Your task to perform on an android device: uninstall "ZOOM Cloud Meetings" Image 0: 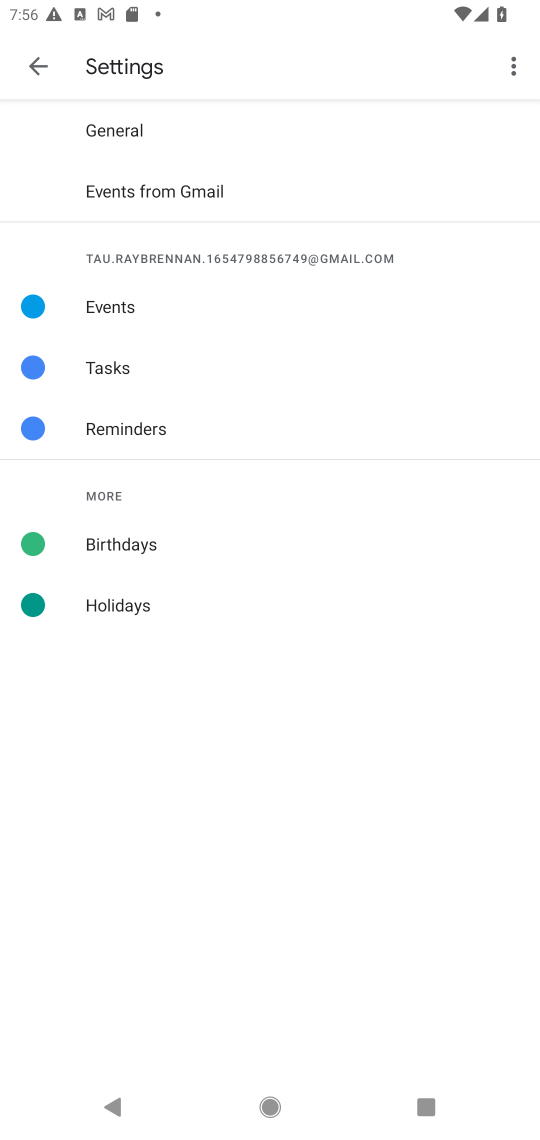
Step 0: press home button
Your task to perform on an android device: uninstall "ZOOM Cloud Meetings" Image 1: 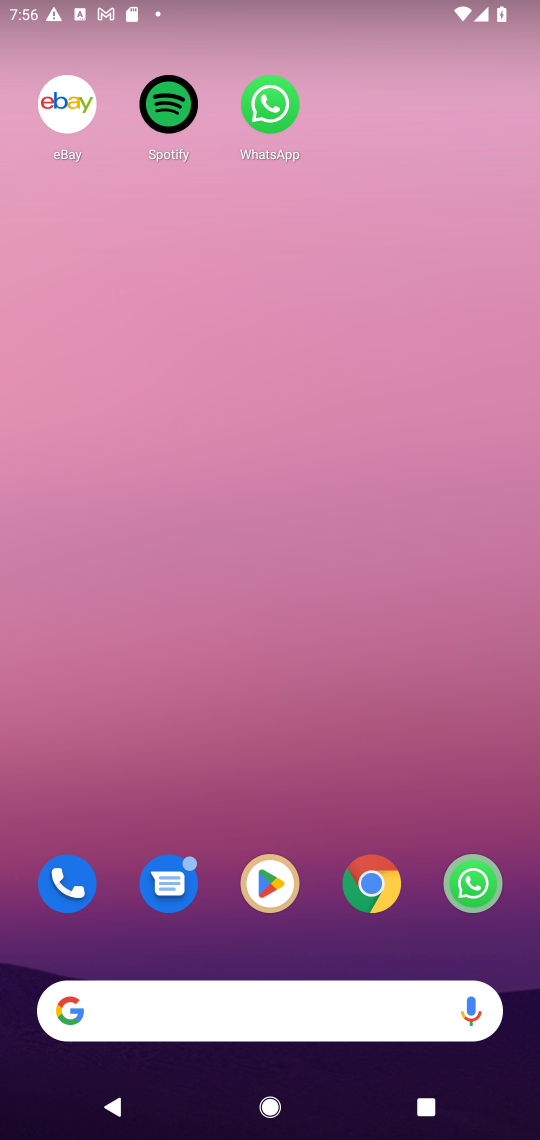
Step 1: click (261, 891)
Your task to perform on an android device: uninstall "ZOOM Cloud Meetings" Image 2: 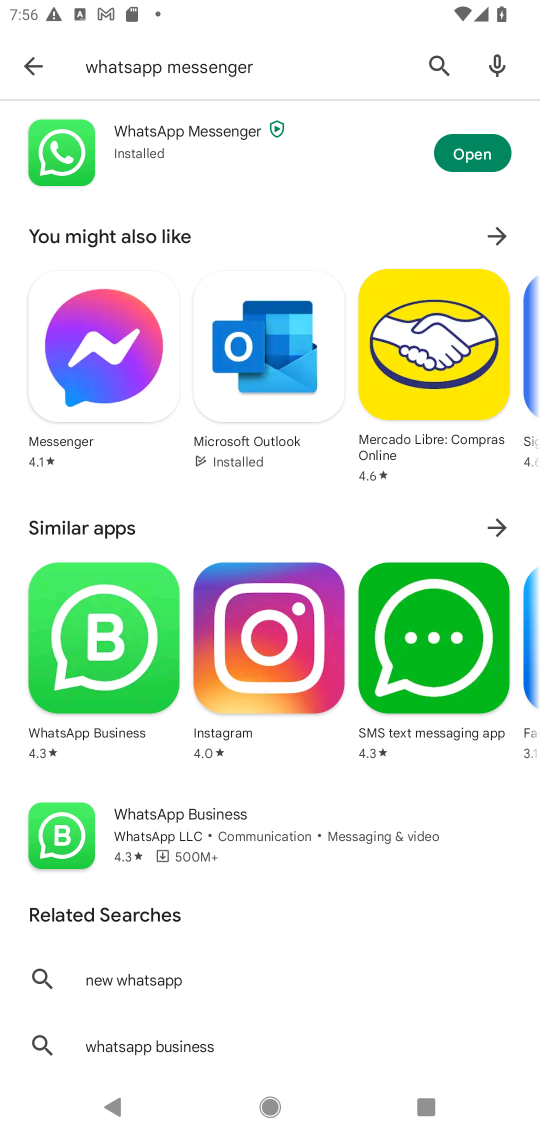
Step 2: click (431, 55)
Your task to perform on an android device: uninstall "ZOOM Cloud Meetings" Image 3: 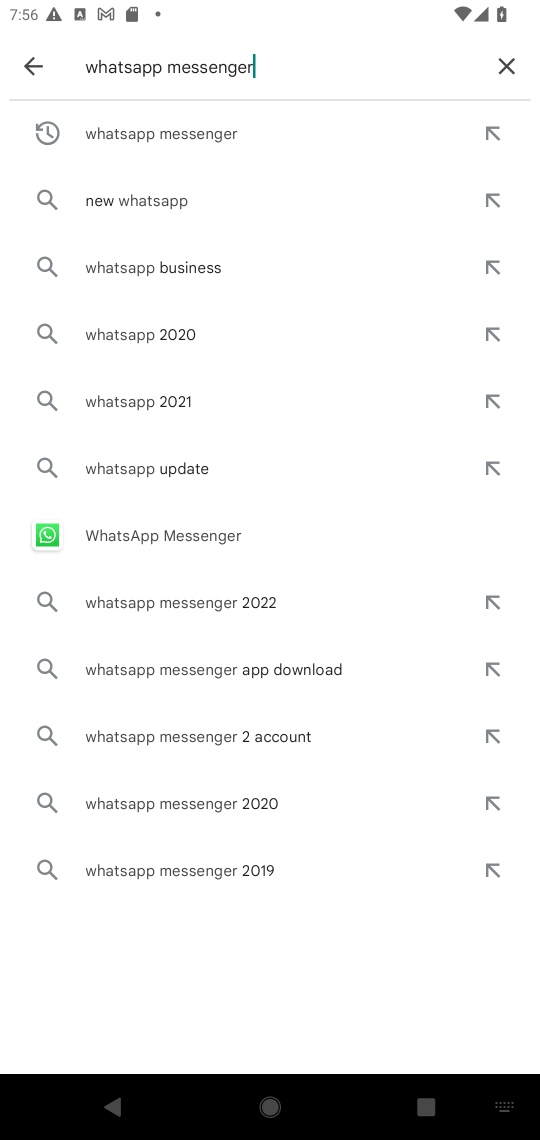
Step 3: click (504, 73)
Your task to perform on an android device: uninstall "ZOOM Cloud Meetings" Image 4: 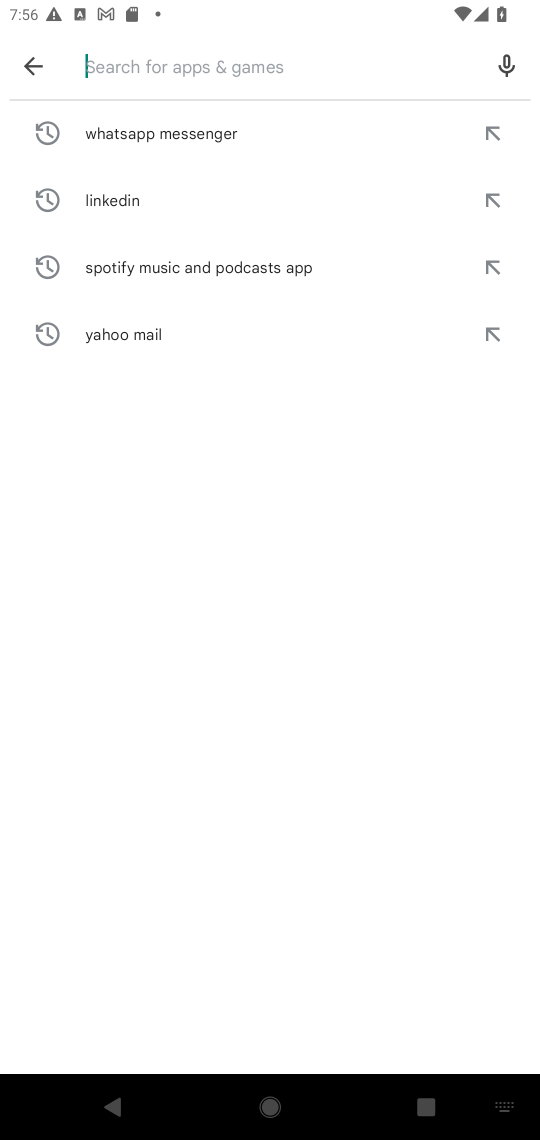
Step 4: type "ZOOM Cloud Meetings"
Your task to perform on an android device: uninstall "ZOOM Cloud Meetings" Image 5: 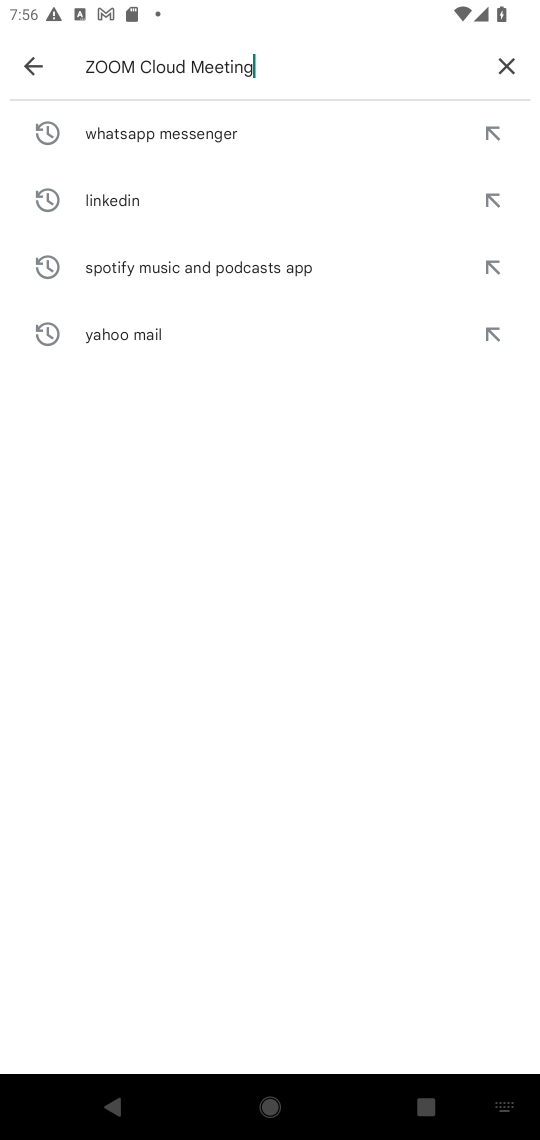
Step 5: type ""
Your task to perform on an android device: uninstall "ZOOM Cloud Meetings" Image 6: 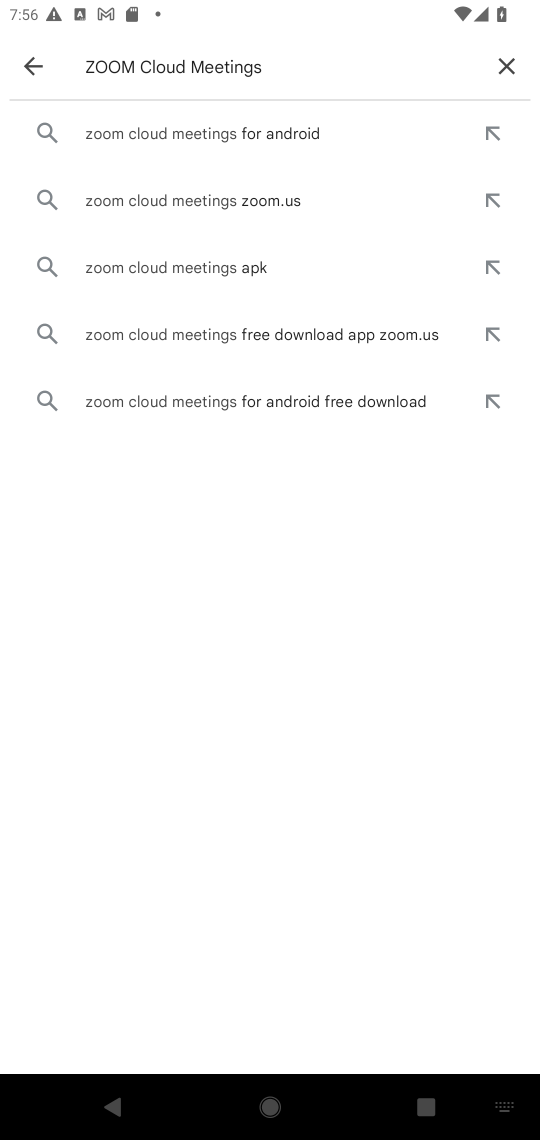
Step 6: click (216, 134)
Your task to perform on an android device: uninstall "ZOOM Cloud Meetings" Image 7: 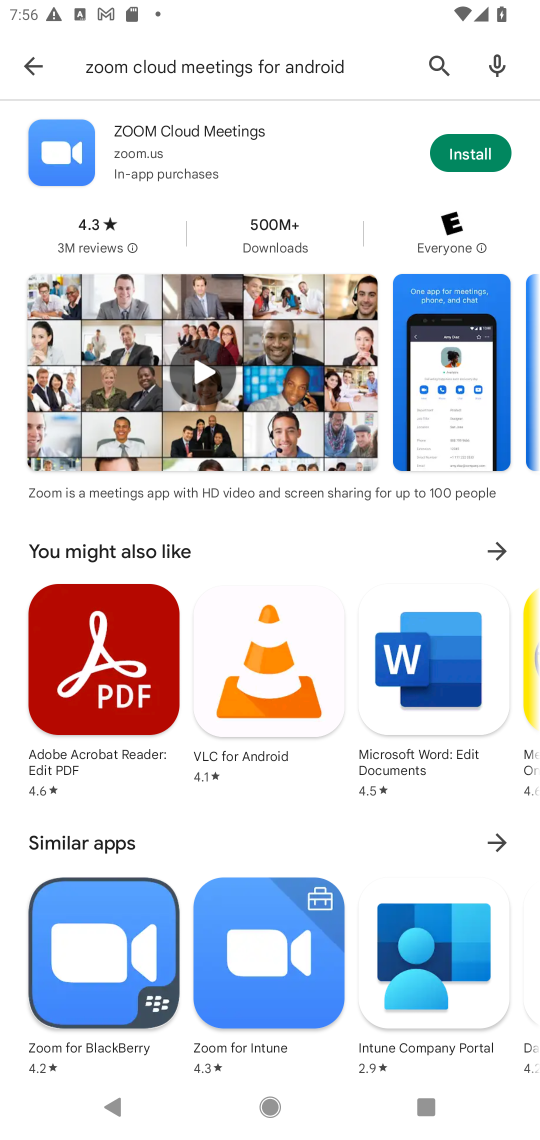
Step 7: task complete